Your task to perform on an android device: Show me popular games on the Play Store Image 0: 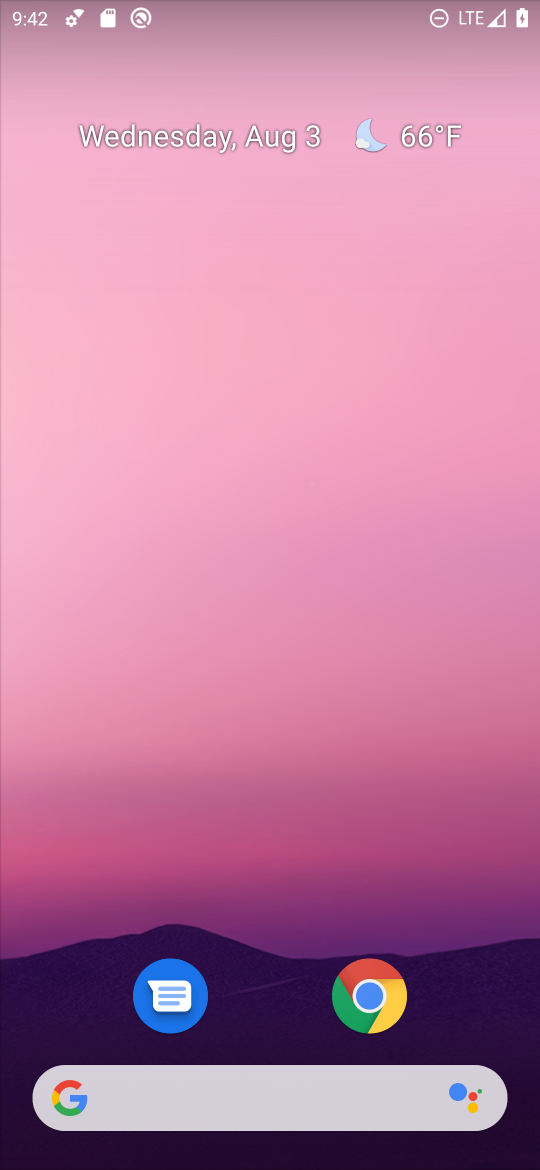
Step 0: drag from (310, 866) to (286, 28)
Your task to perform on an android device: Show me popular games on the Play Store Image 1: 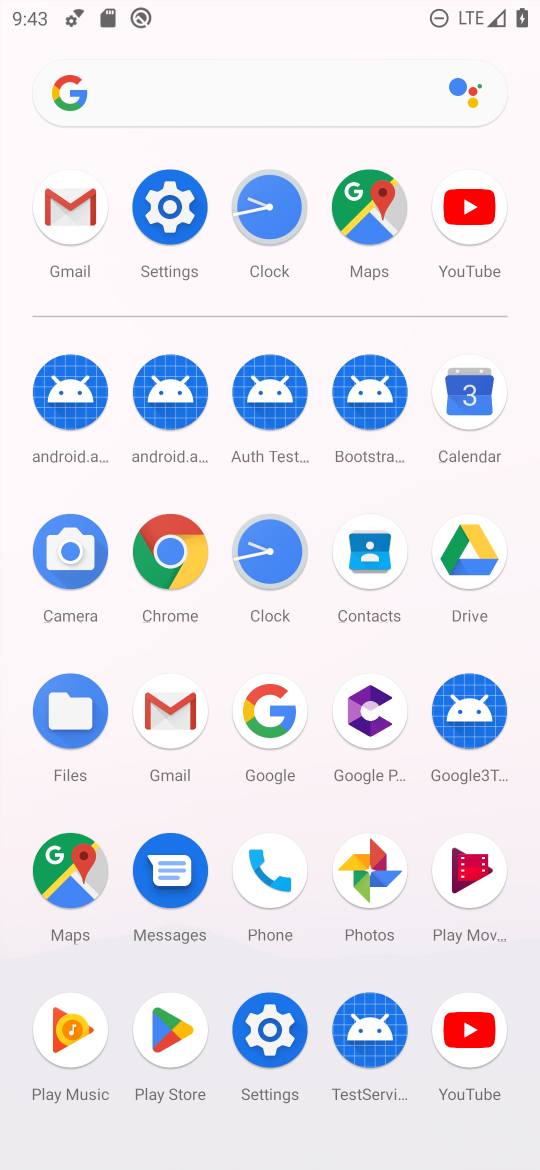
Step 1: click (177, 1011)
Your task to perform on an android device: Show me popular games on the Play Store Image 2: 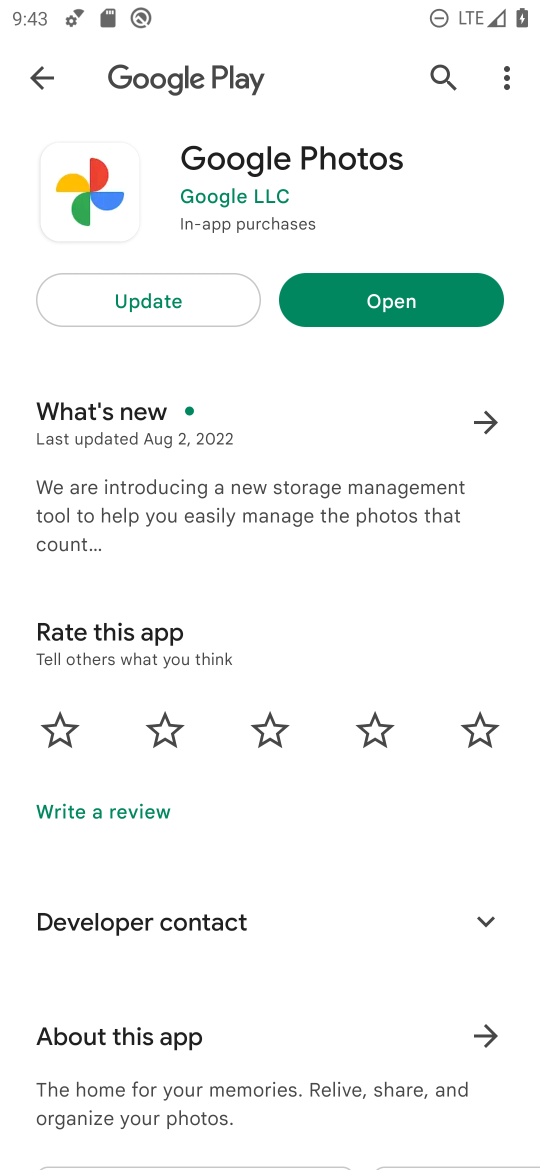
Step 2: click (38, 74)
Your task to perform on an android device: Show me popular games on the Play Store Image 3: 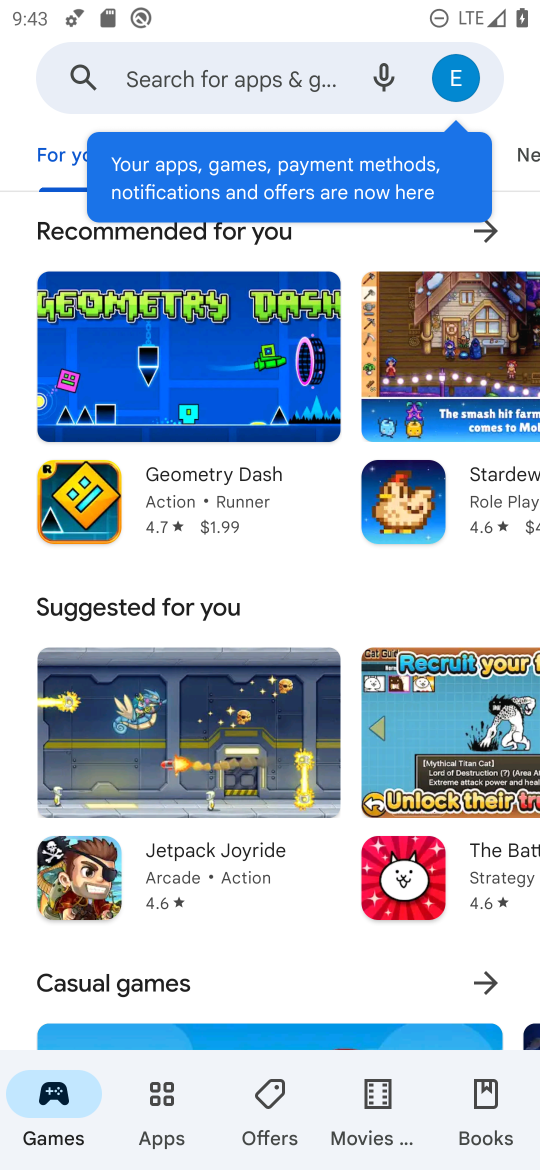
Step 3: task complete